Your task to perform on an android device: Search for sushi restaurants on Maps Image 0: 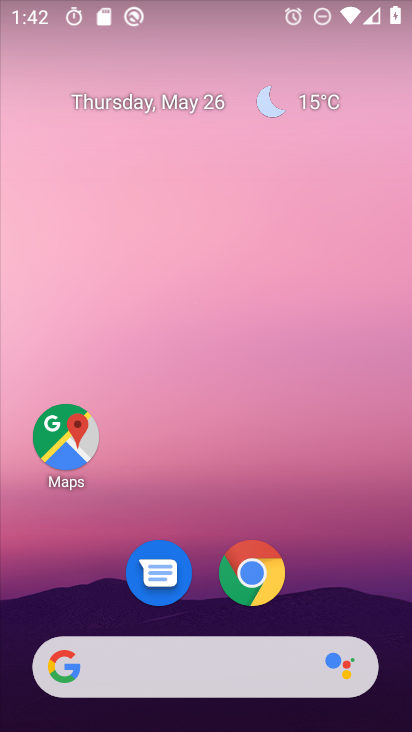
Step 0: click (66, 432)
Your task to perform on an android device: Search for sushi restaurants on Maps Image 1: 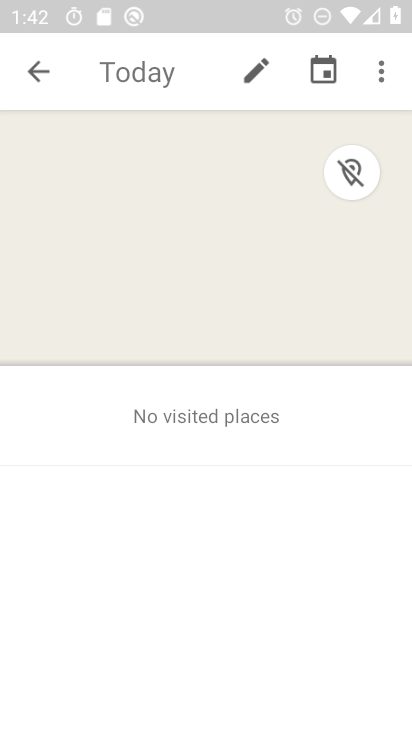
Step 1: click (42, 73)
Your task to perform on an android device: Search for sushi restaurants on Maps Image 2: 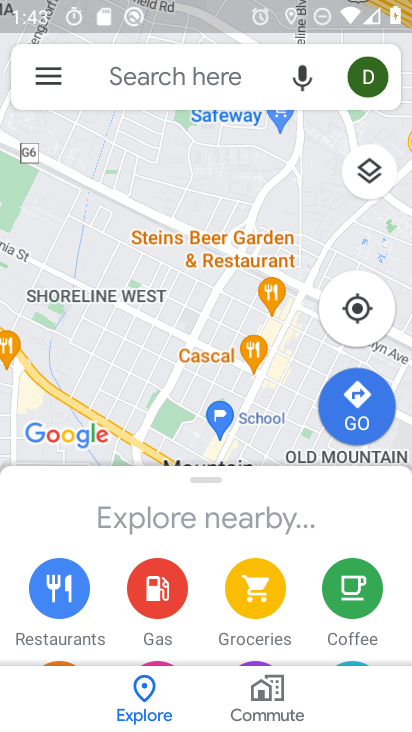
Step 2: click (112, 86)
Your task to perform on an android device: Search for sushi restaurants on Maps Image 3: 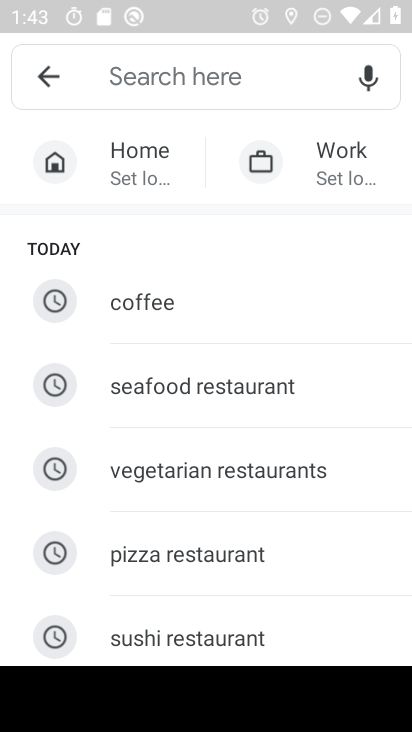
Step 3: type "sushi restaurants "
Your task to perform on an android device: Search for sushi restaurants on Maps Image 4: 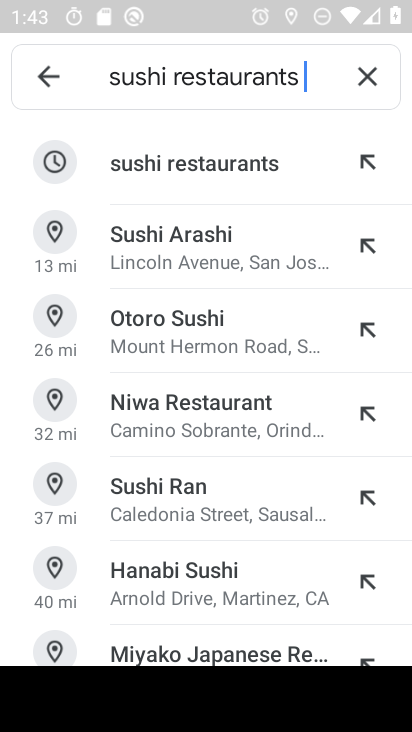
Step 4: click (200, 165)
Your task to perform on an android device: Search for sushi restaurants on Maps Image 5: 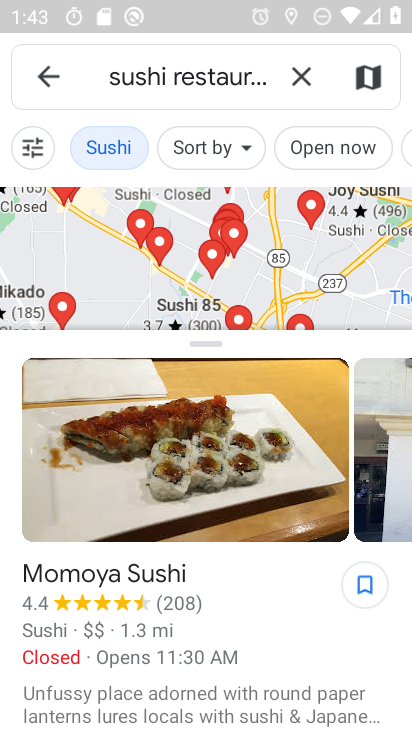
Step 5: task complete